Your task to perform on an android device: Open my contact list Image 0: 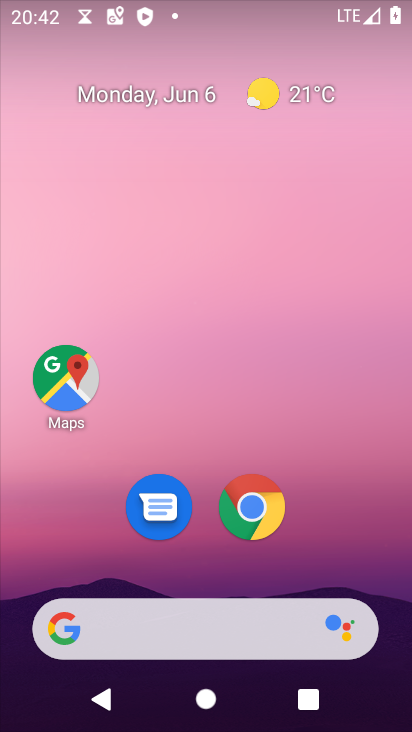
Step 0: drag from (165, 359) to (146, 24)
Your task to perform on an android device: Open my contact list Image 1: 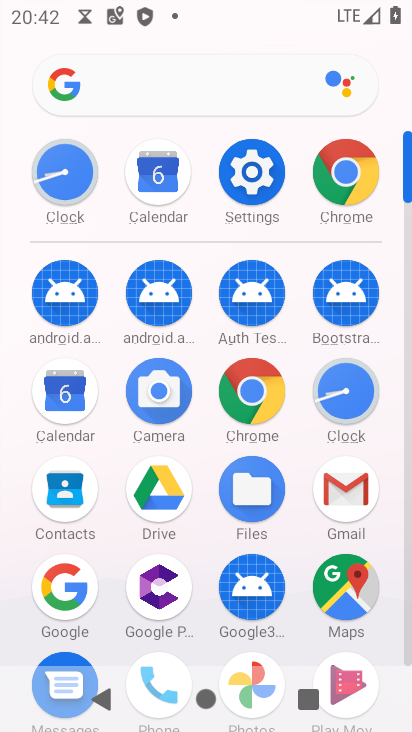
Step 1: click (65, 511)
Your task to perform on an android device: Open my contact list Image 2: 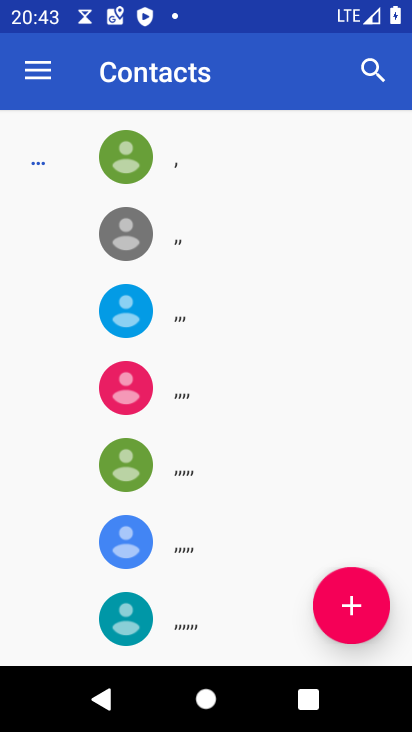
Step 2: click (344, 600)
Your task to perform on an android device: Open my contact list Image 3: 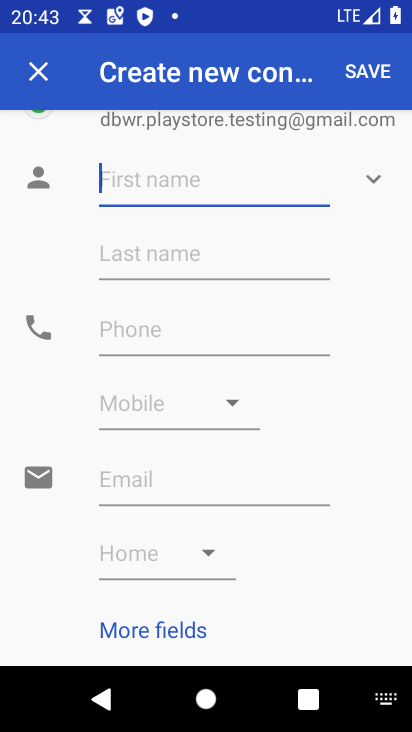
Step 3: task complete